Your task to perform on an android device: toggle priority inbox in the gmail app Image 0: 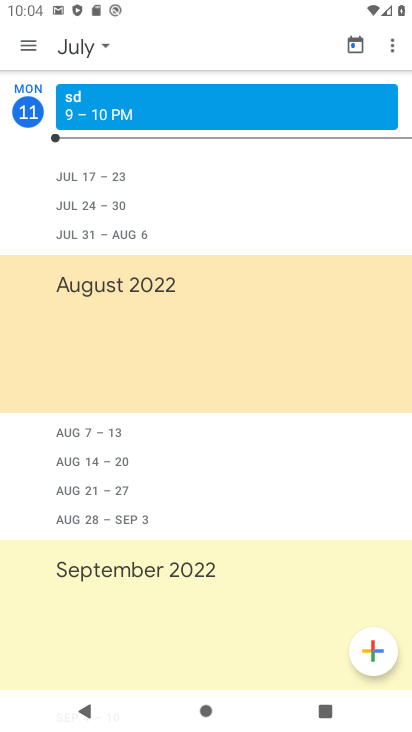
Step 0: press home button
Your task to perform on an android device: toggle priority inbox in the gmail app Image 1: 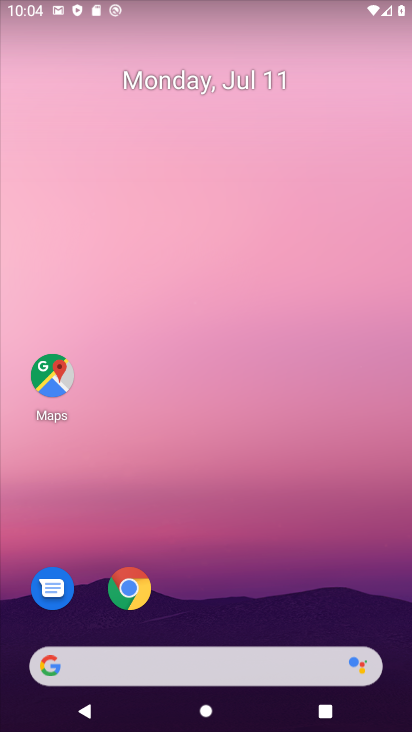
Step 1: drag from (138, 680) to (273, 204)
Your task to perform on an android device: toggle priority inbox in the gmail app Image 2: 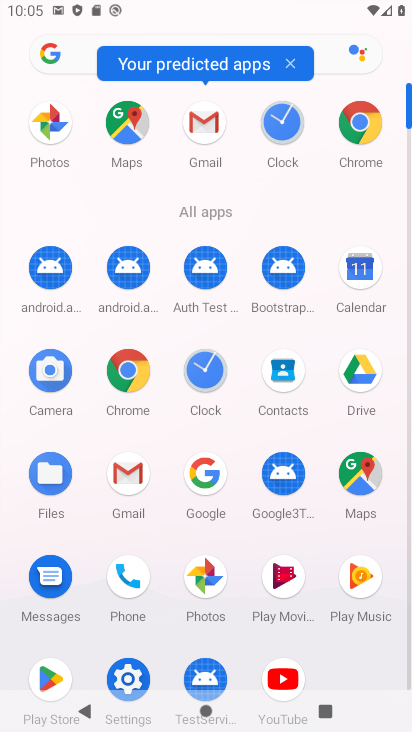
Step 2: click (203, 133)
Your task to perform on an android device: toggle priority inbox in the gmail app Image 3: 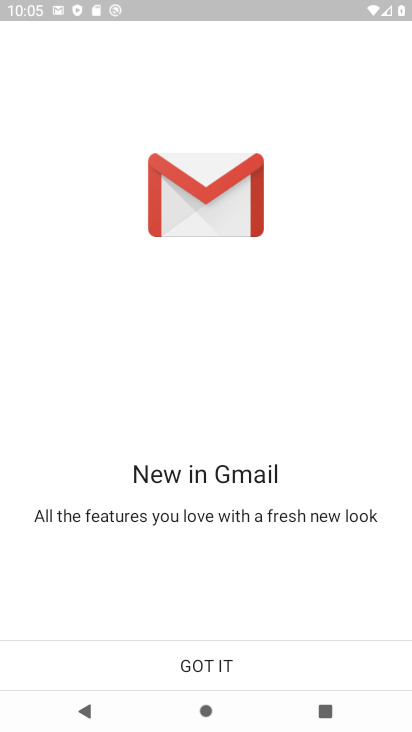
Step 3: click (225, 660)
Your task to perform on an android device: toggle priority inbox in the gmail app Image 4: 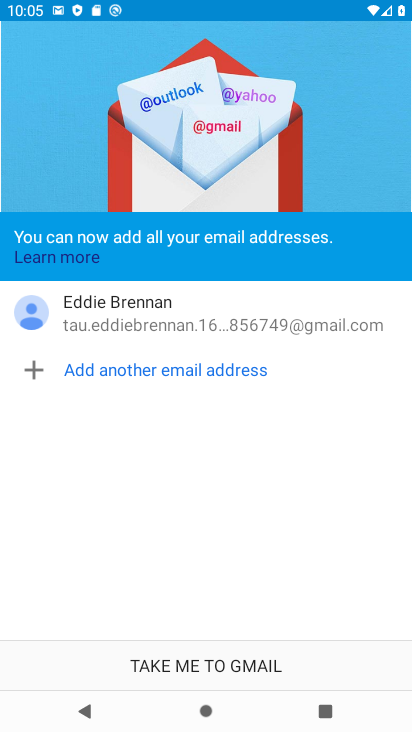
Step 4: click (225, 659)
Your task to perform on an android device: toggle priority inbox in the gmail app Image 5: 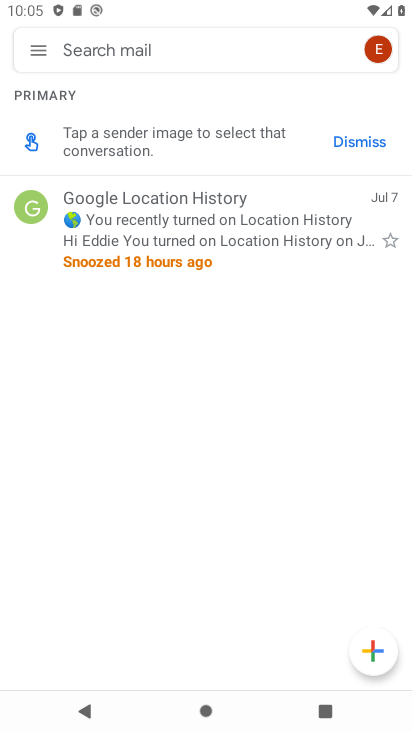
Step 5: click (36, 54)
Your task to perform on an android device: toggle priority inbox in the gmail app Image 6: 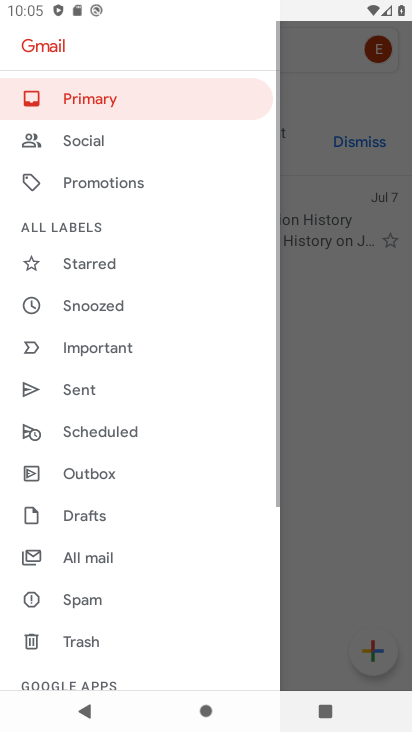
Step 6: drag from (100, 614) to (208, 71)
Your task to perform on an android device: toggle priority inbox in the gmail app Image 7: 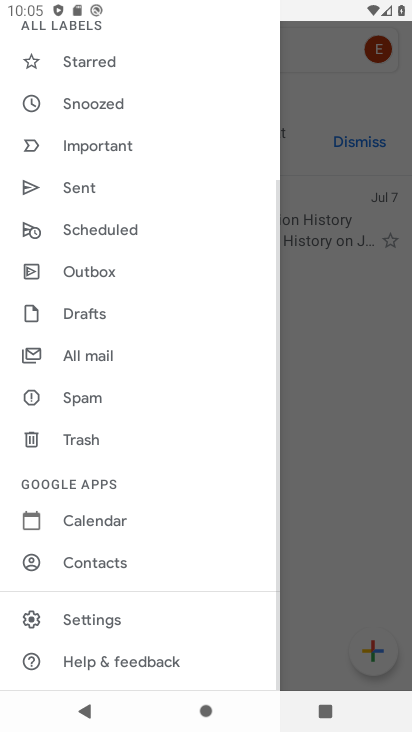
Step 7: click (108, 620)
Your task to perform on an android device: toggle priority inbox in the gmail app Image 8: 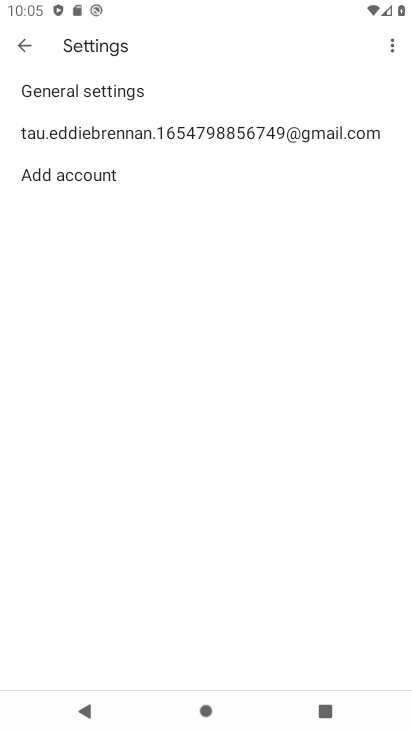
Step 8: click (248, 129)
Your task to perform on an android device: toggle priority inbox in the gmail app Image 9: 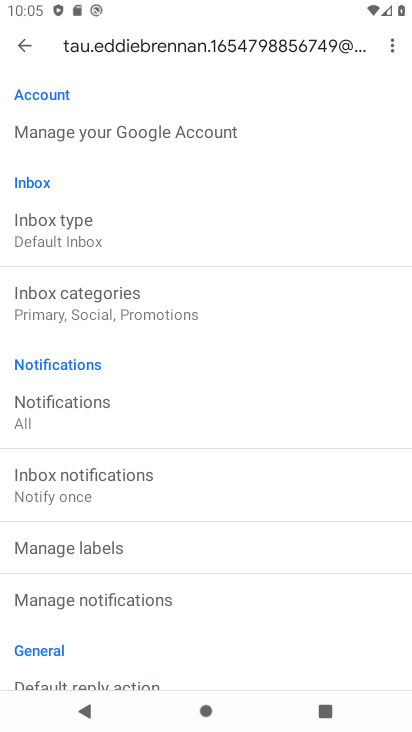
Step 9: click (84, 232)
Your task to perform on an android device: toggle priority inbox in the gmail app Image 10: 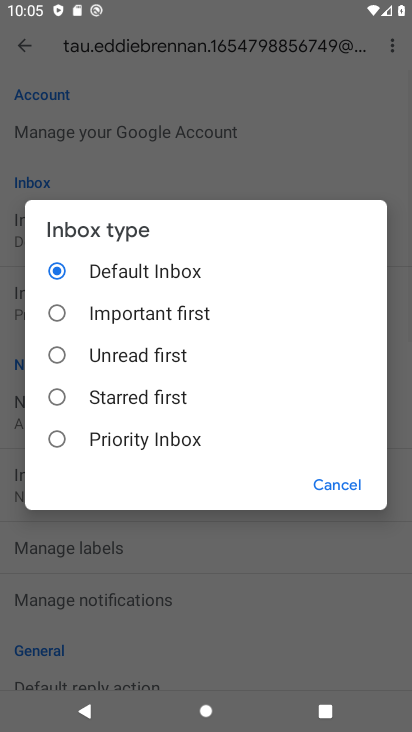
Step 10: click (60, 439)
Your task to perform on an android device: toggle priority inbox in the gmail app Image 11: 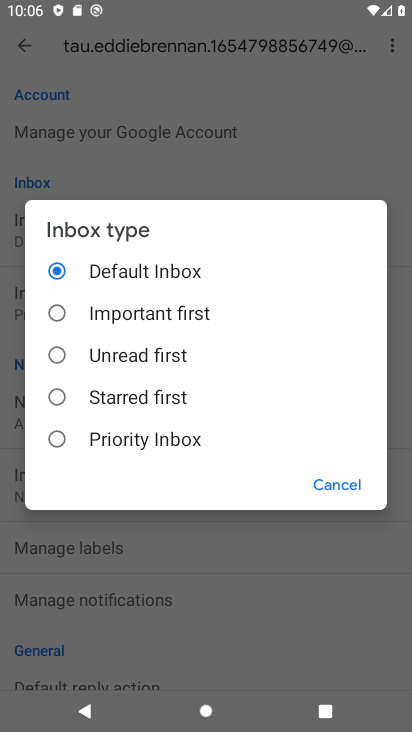
Step 11: click (55, 436)
Your task to perform on an android device: toggle priority inbox in the gmail app Image 12: 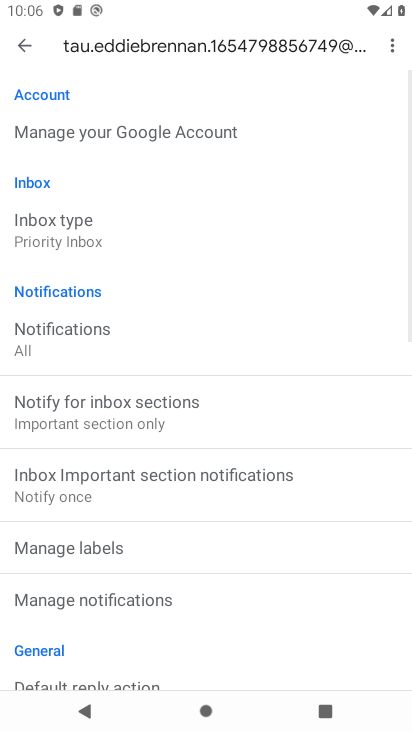
Step 12: task complete